Your task to perform on an android device: Go to Yahoo.com Image 0: 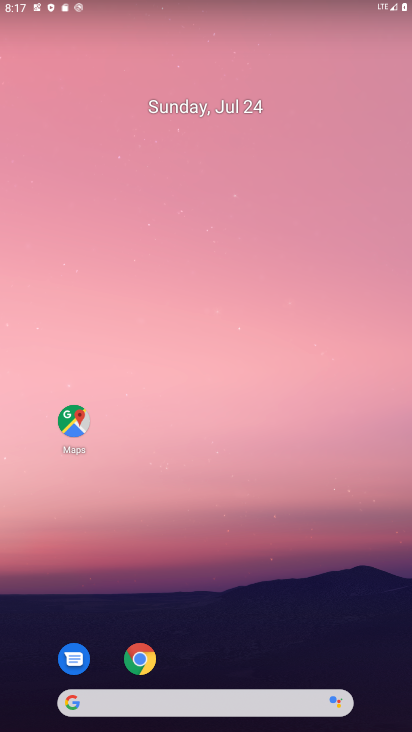
Step 0: click (138, 660)
Your task to perform on an android device: Go to Yahoo.com Image 1: 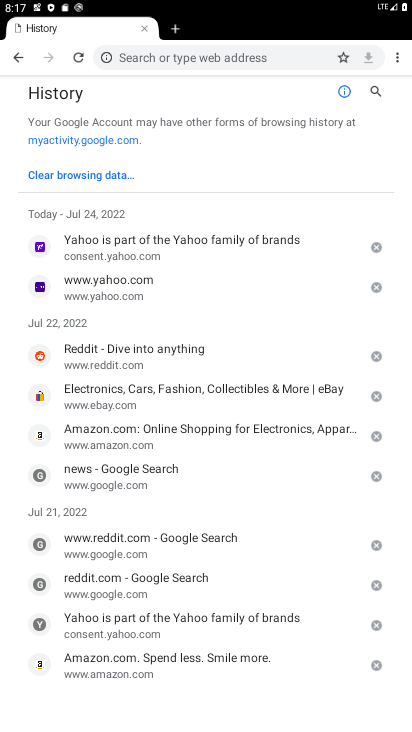
Step 1: click (397, 60)
Your task to perform on an android device: Go to Yahoo.com Image 2: 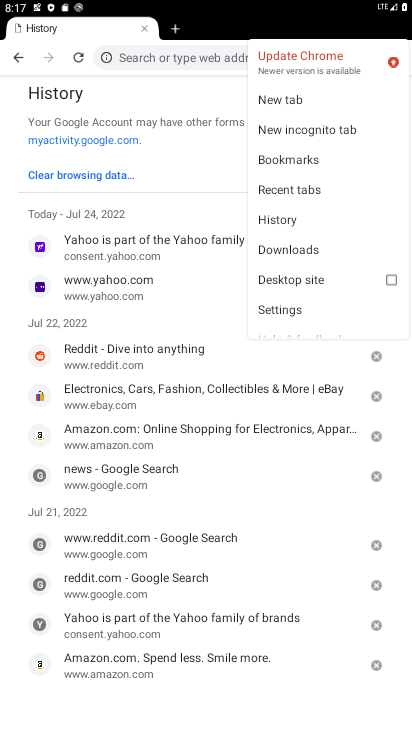
Step 2: click (277, 98)
Your task to perform on an android device: Go to Yahoo.com Image 3: 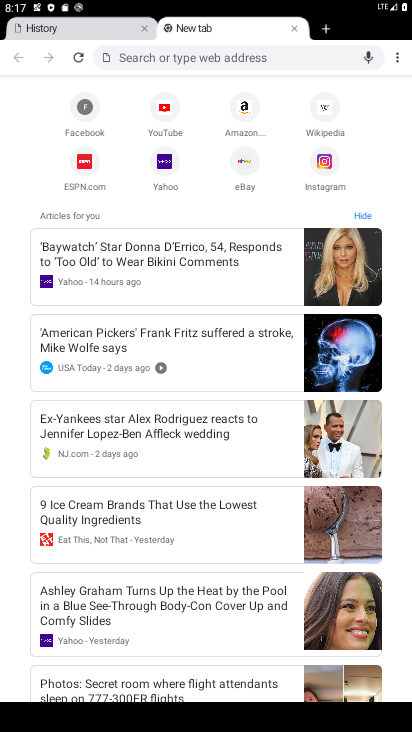
Step 3: click (168, 164)
Your task to perform on an android device: Go to Yahoo.com Image 4: 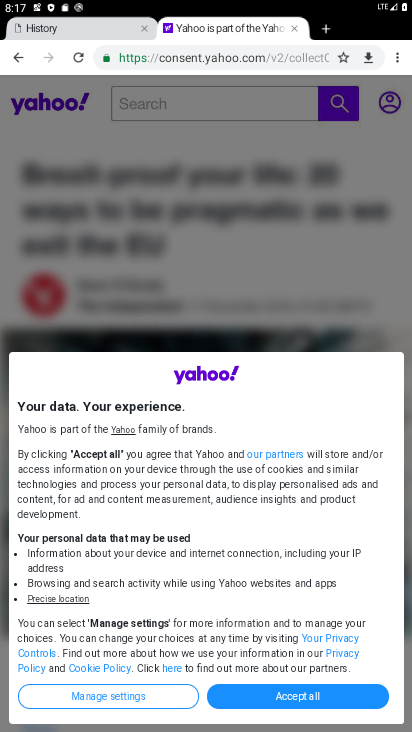
Step 4: task complete